Your task to perform on an android device: visit the assistant section in the google photos Image 0: 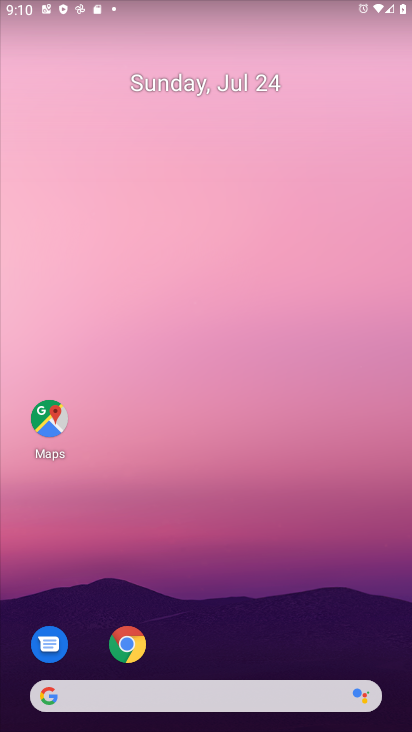
Step 0: drag from (253, 692) to (302, 161)
Your task to perform on an android device: visit the assistant section in the google photos Image 1: 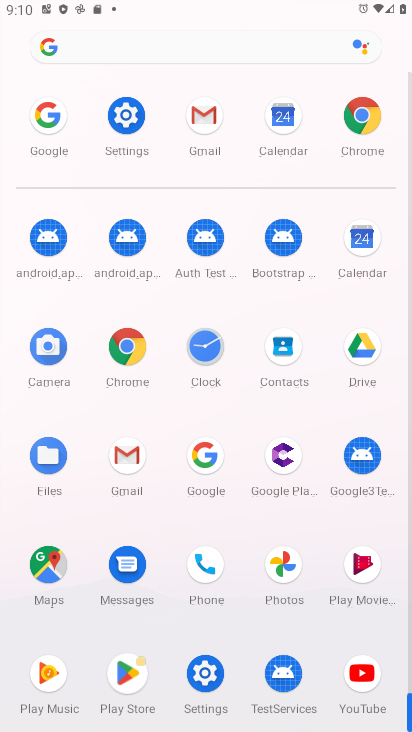
Step 1: drag from (247, 426) to (255, 101)
Your task to perform on an android device: visit the assistant section in the google photos Image 2: 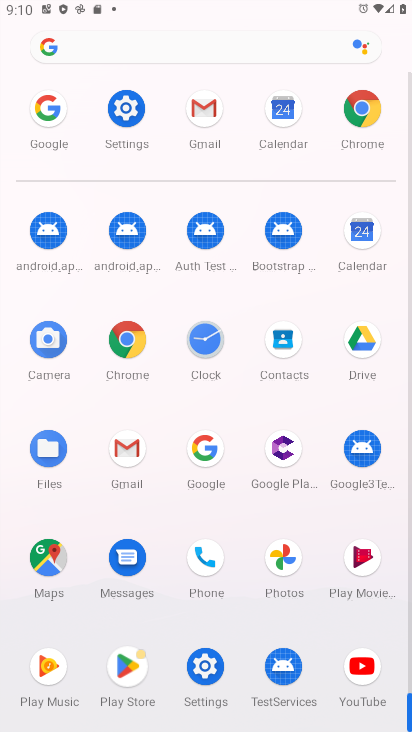
Step 2: click (270, 566)
Your task to perform on an android device: visit the assistant section in the google photos Image 3: 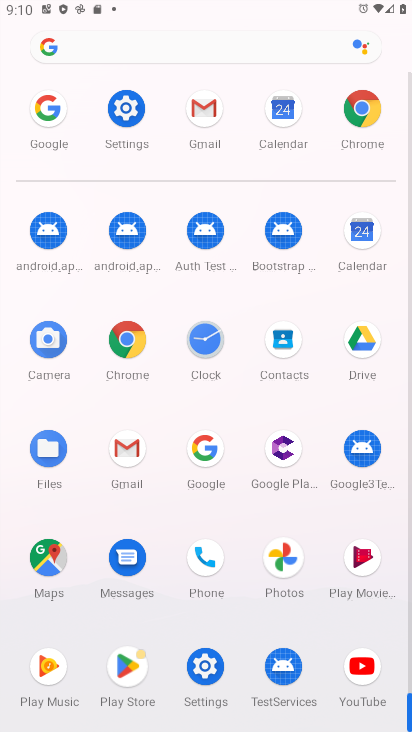
Step 3: click (276, 568)
Your task to perform on an android device: visit the assistant section in the google photos Image 4: 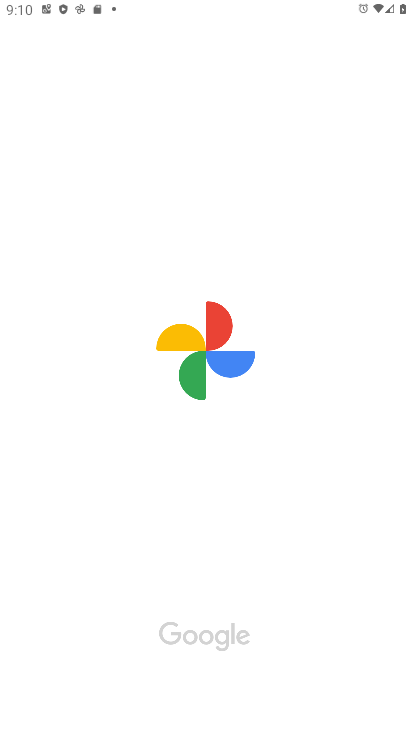
Step 4: click (282, 561)
Your task to perform on an android device: visit the assistant section in the google photos Image 5: 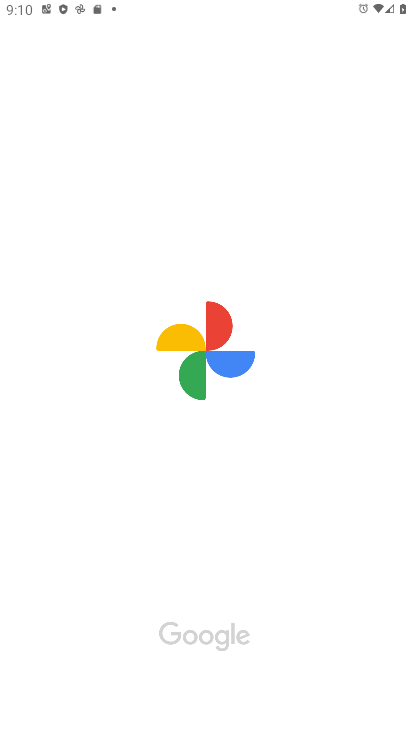
Step 5: click (285, 557)
Your task to perform on an android device: visit the assistant section in the google photos Image 6: 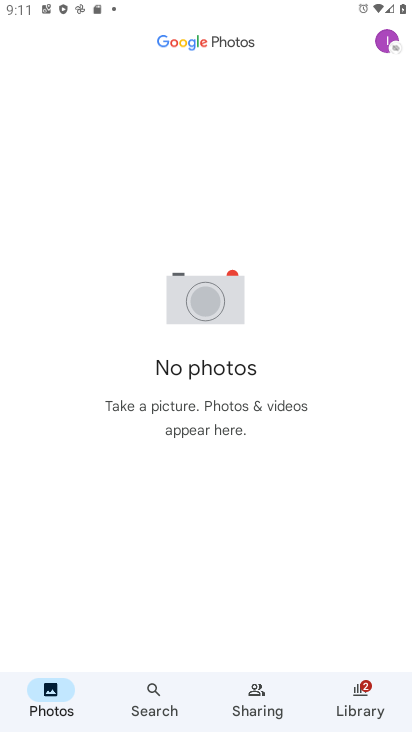
Step 6: click (223, 301)
Your task to perform on an android device: visit the assistant section in the google photos Image 7: 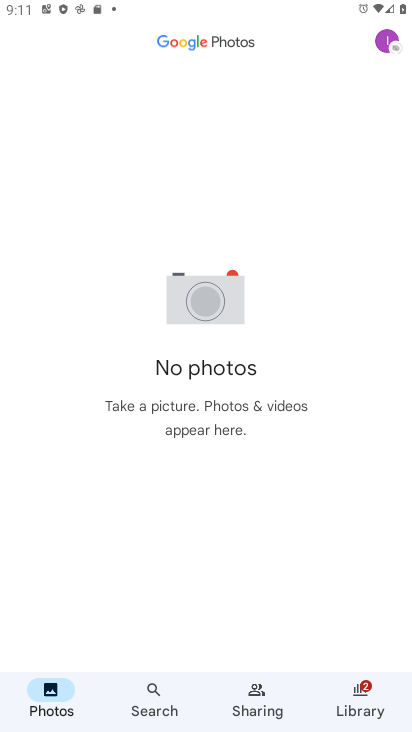
Step 7: click (219, 298)
Your task to perform on an android device: visit the assistant section in the google photos Image 8: 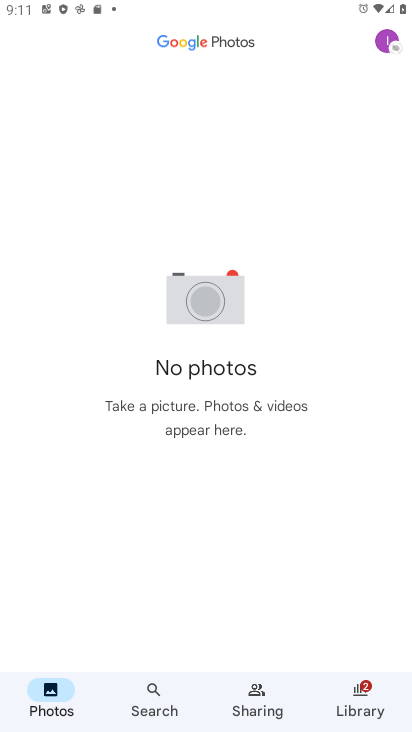
Step 8: click (219, 297)
Your task to perform on an android device: visit the assistant section in the google photos Image 9: 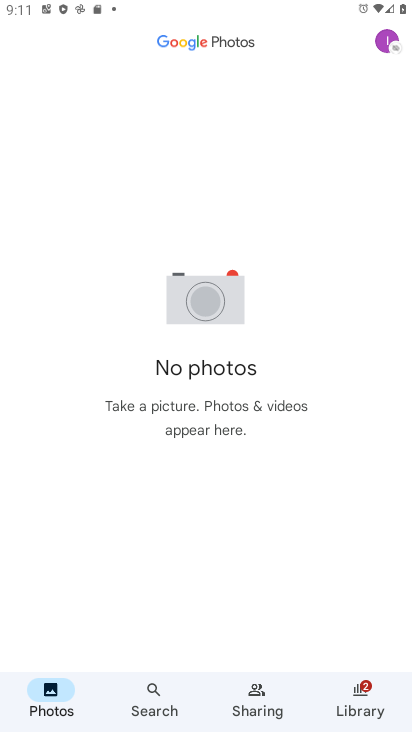
Step 9: click (215, 292)
Your task to perform on an android device: visit the assistant section in the google photos Image 10: 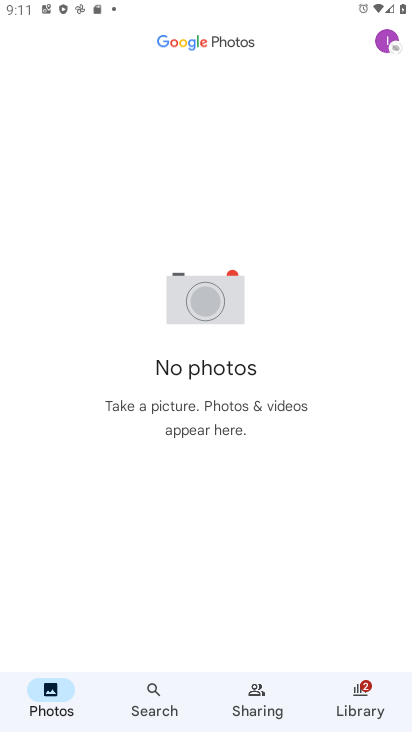
Step 10: click (215, 292)
Your task to perform on an android device: visit the assistant section in the google photos Image 11: 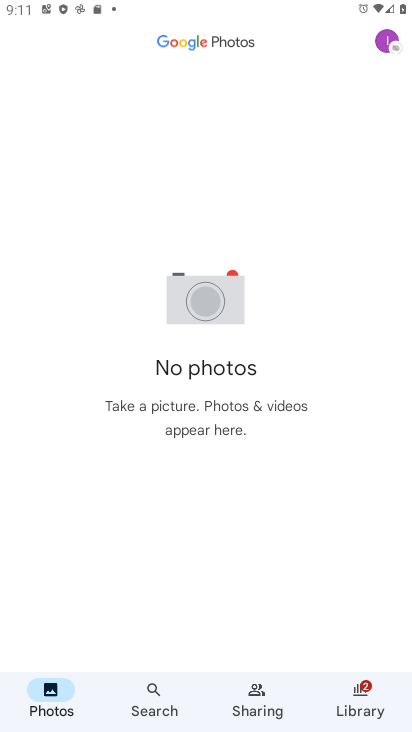
Step 11: click (394, 49)
Your task to perform on an android device: visit the assistant section in the google photos Image 12: 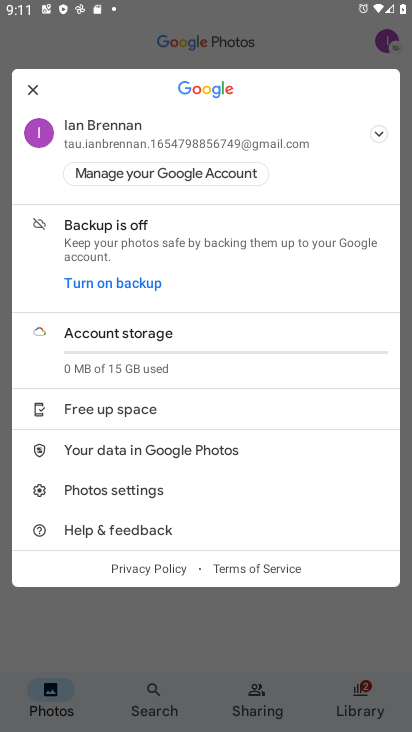
Step 12: task complete